Your task to perform on an android device: toggle location history Image 0: 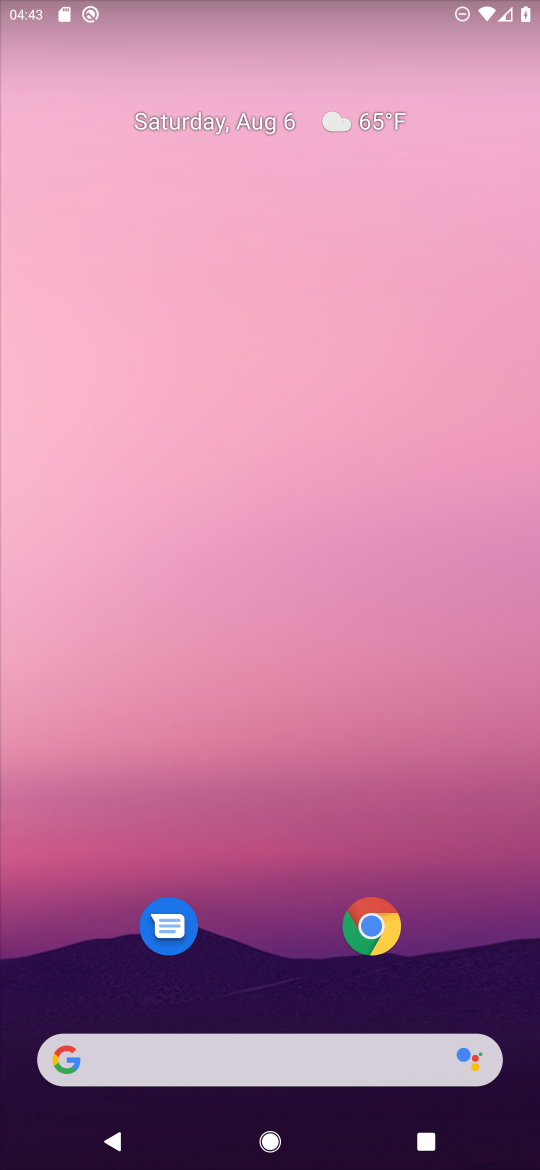
Step 0: drag from (306, 933) to (265, 329)
Your task to perform on an android device: toggle location history Image 1: 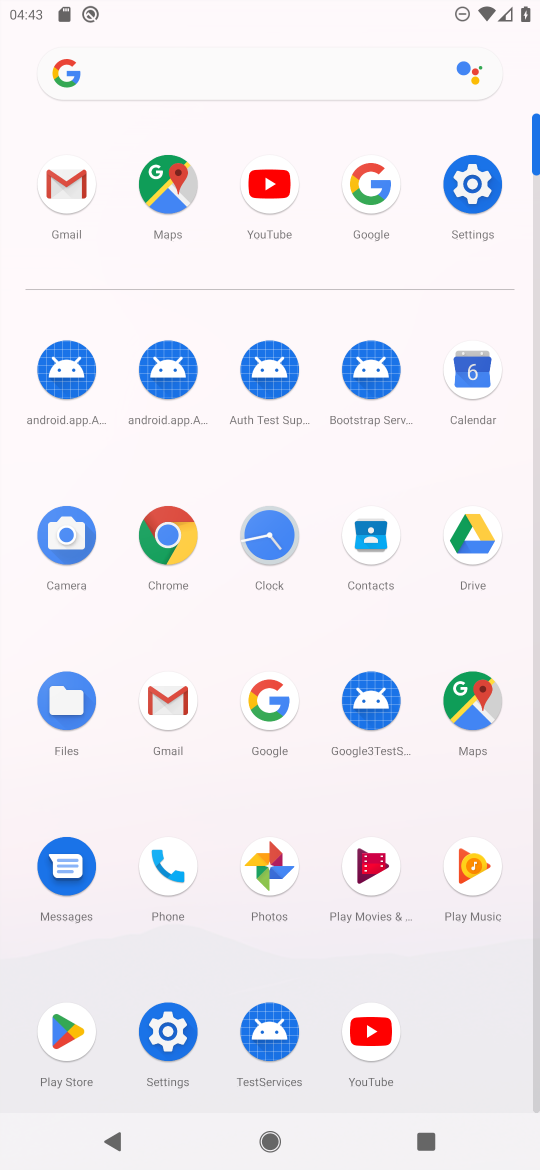
Step 1: click (464, 214)
Your task to perform on an android device: toggle location history Image 2: 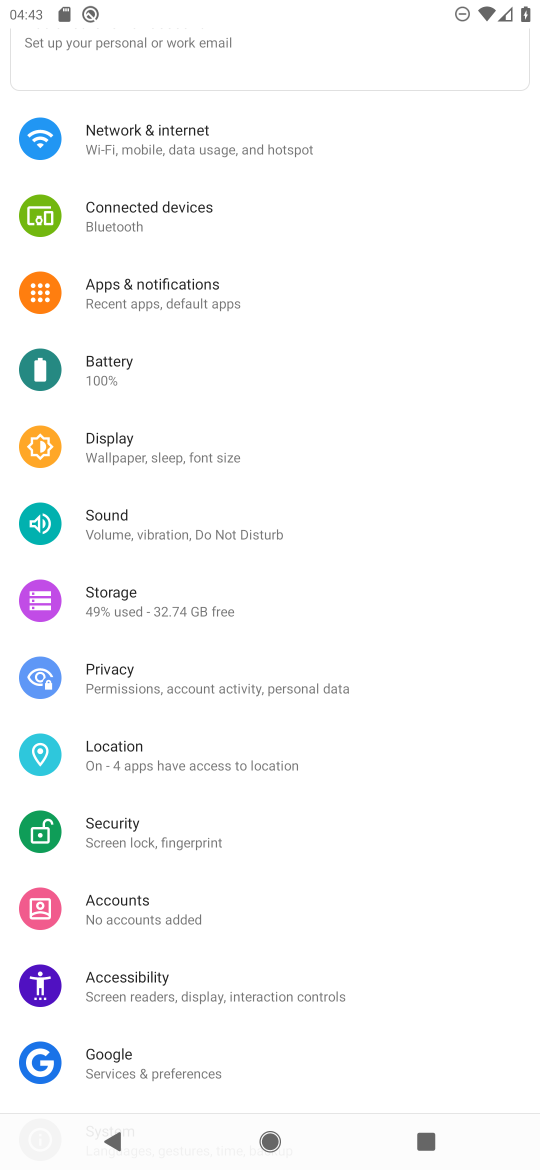
Step 2: click (190, 760)
Your task to perform on an android device: toggle location history Image 3: 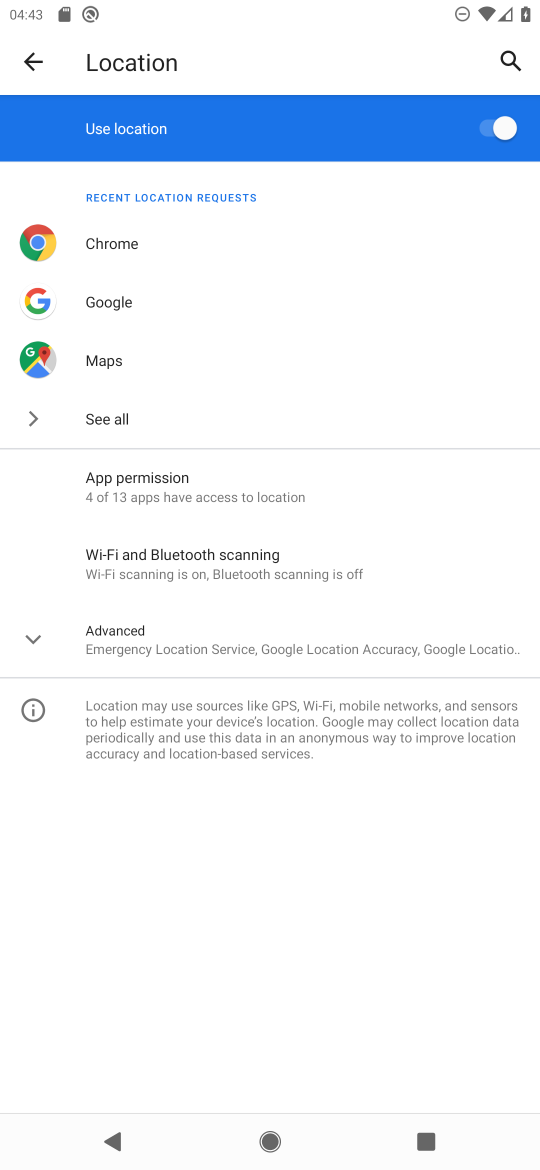
Step 3: click (204, 645)
Your task to perform on an android device: toggle location history Image 4: 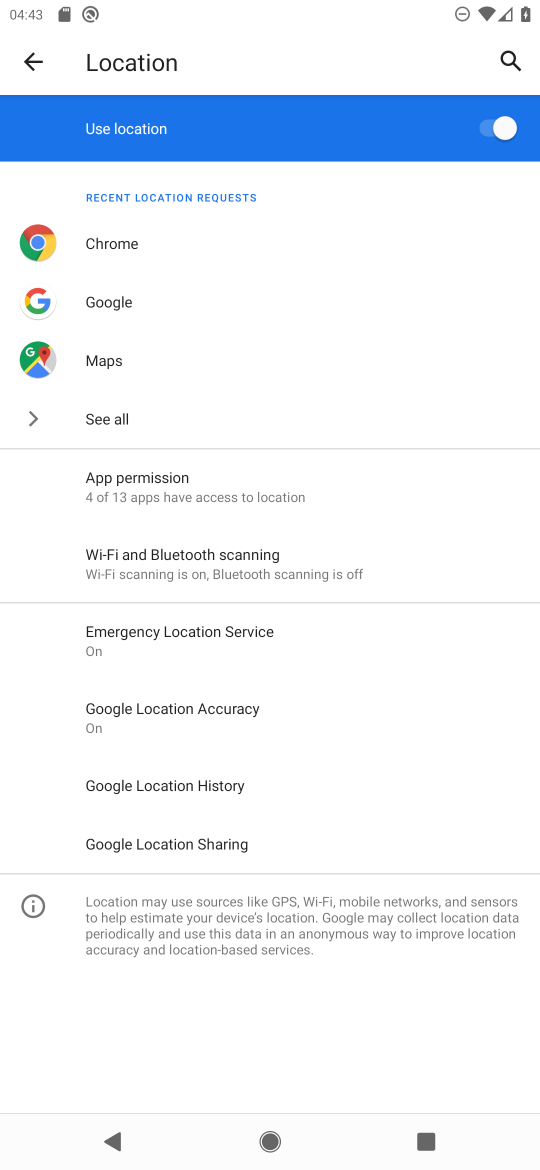
Step 4: click (269, 792)
Your task to perform on an android device: toggle location history Image 5: 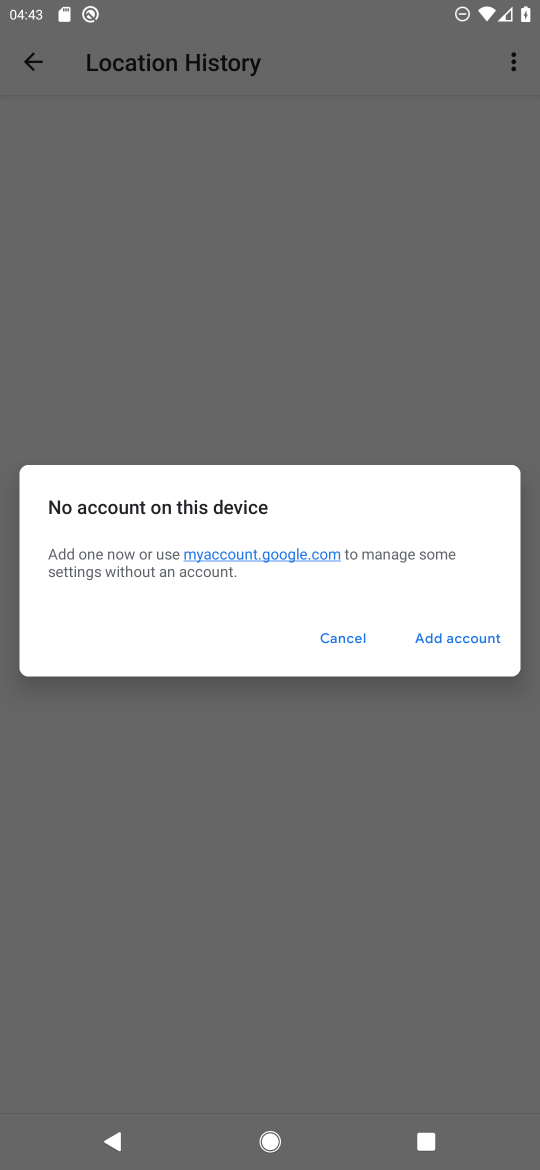
Step 5: task complete